Your task to perform on an android device: Open maps Image 0: 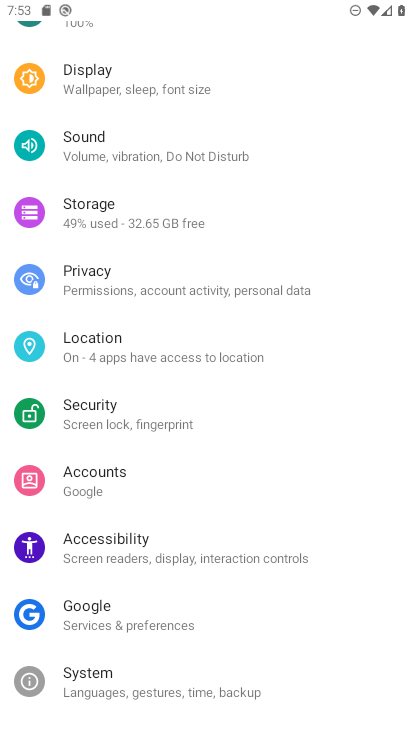
Step 0: drag from (215, 627) to (232, 297)
Your task to perform on an android device: Open maps Image 1: 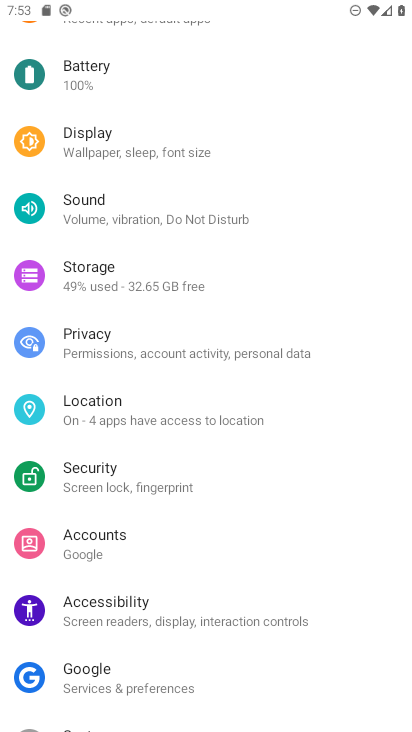
Step 1: press home button
Your task to perform on an android device: Open maps Image 2: 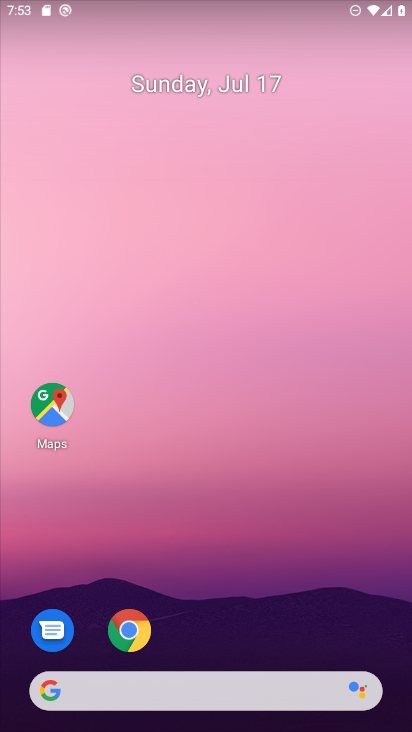
Step 2: click (54, 421)
Your task to perform on an android device: Open maps Image 3: 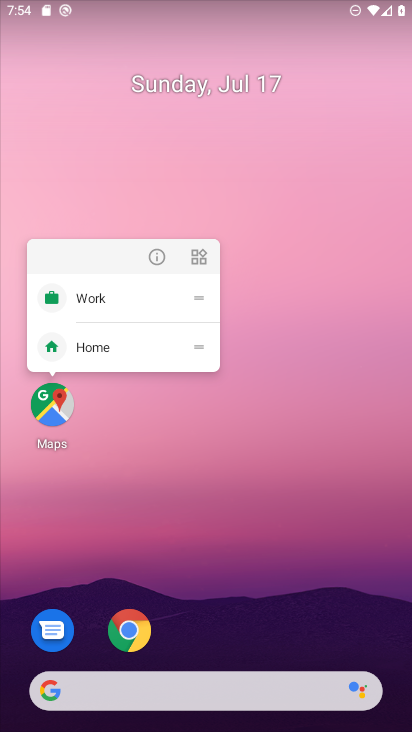
Step 3: click (52, 407)
Your task to perform on an android device: Open maps Image 4: 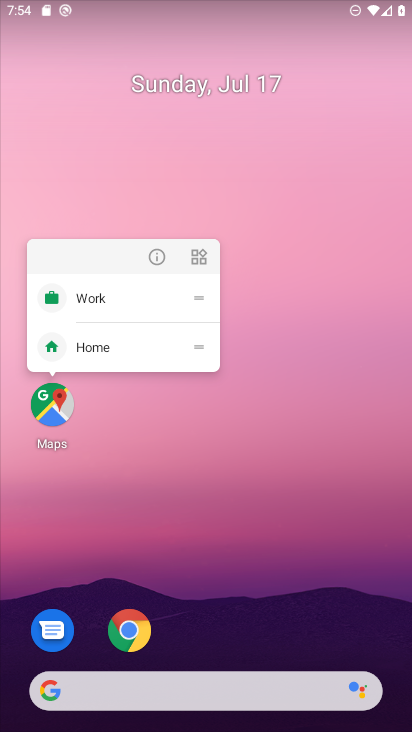
Step 4: click (52, 407)
Your task to perform on an android device: Open maps Image 5: 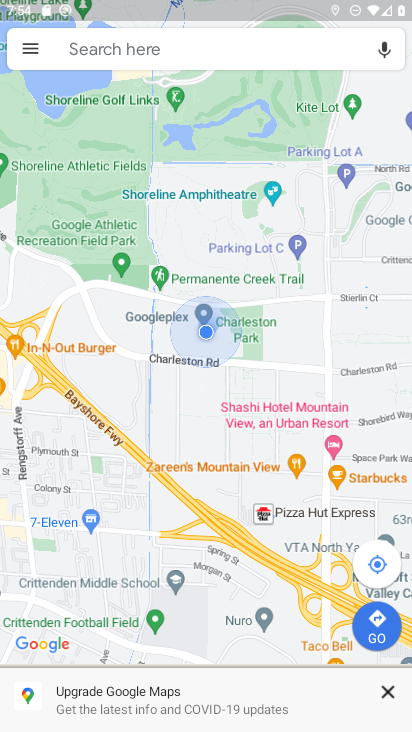
Step 5: task complete